Your task to perform on an android device: delete a single message in the gmail app Image 0: 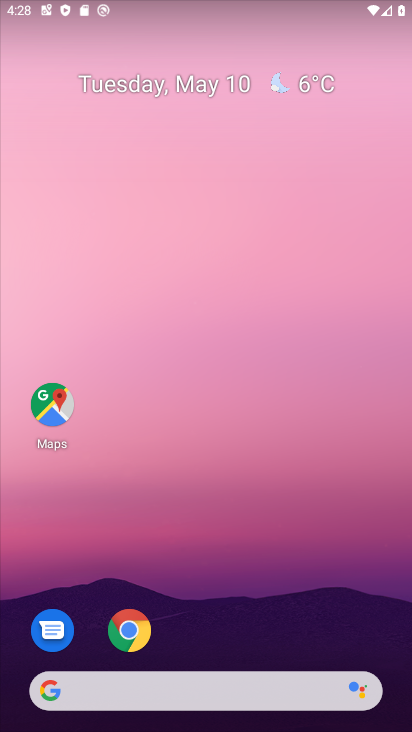
Step 0: drag from (243, 649) to (271, 267)
Your task to perform on an android device: delete a single message in the gmail app Image 1: 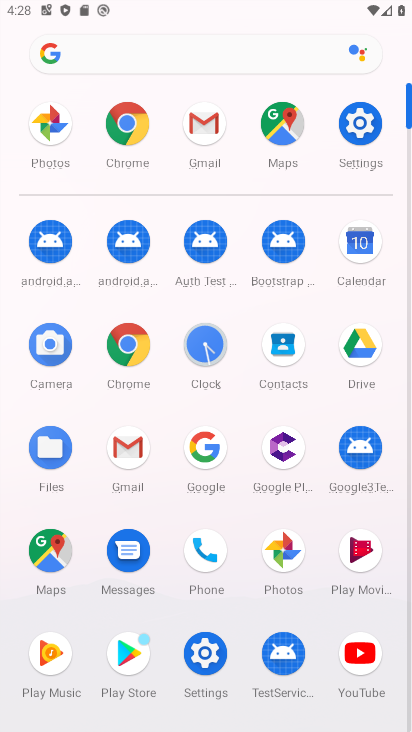
Step 1: click (202, 130)
Your task to perform on an android device: delete a single message in the gmail app Image 2: 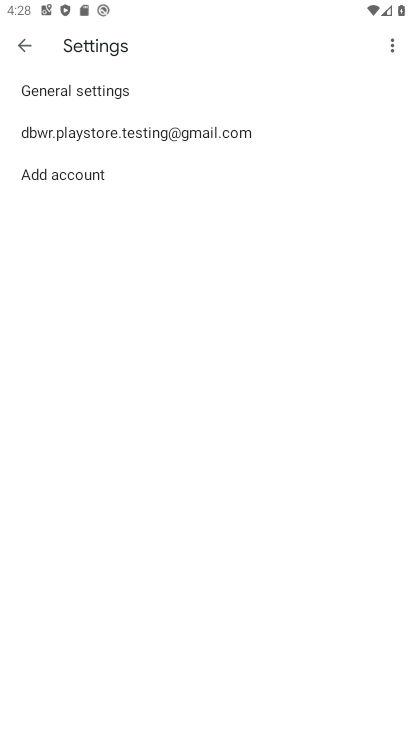
Step 2: click (21, 43)
Your task to perform on an android device: delete a single message in the gmail app Image 3: 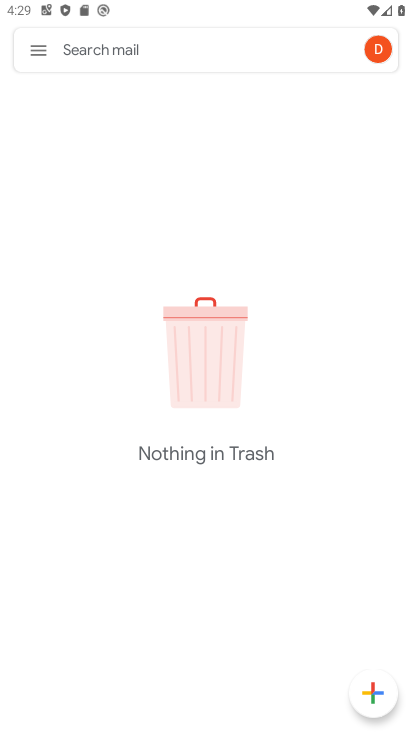
Step 3: click (43, 43)
Your task to perform on an android device: delete a single message in the gmail app Image 4: 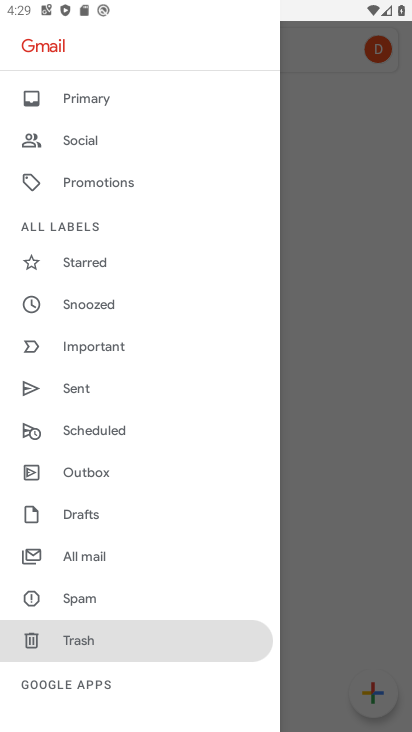
Step 4: click (94, 553)
Your task to perform on an android device: delete a single message in the gmail app Image 5: 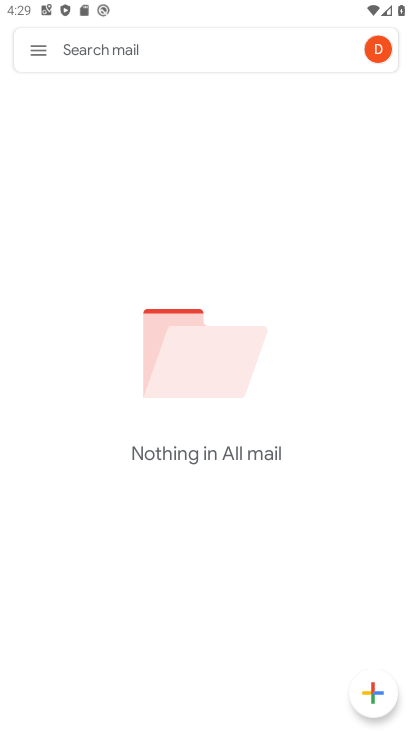
Step 5: task complete